Your task to perform on an android device: Open Google Chrome and click the shortcut for Amazon.com Image 0: 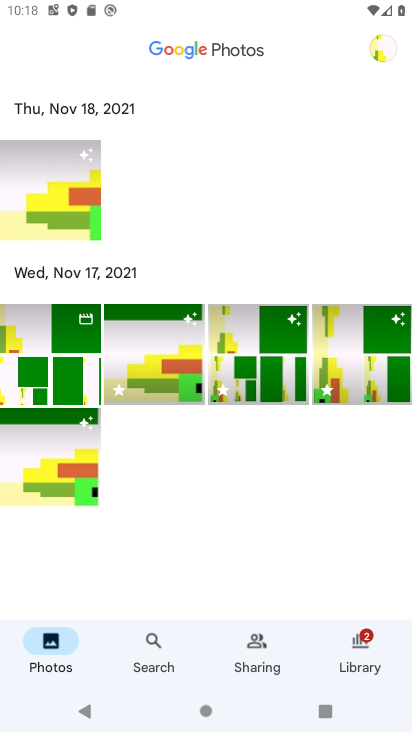
Step 0: press home button
Your task to perform on an android device: Open Google Chrome and click the shortcut for Amazon.com Image 1: 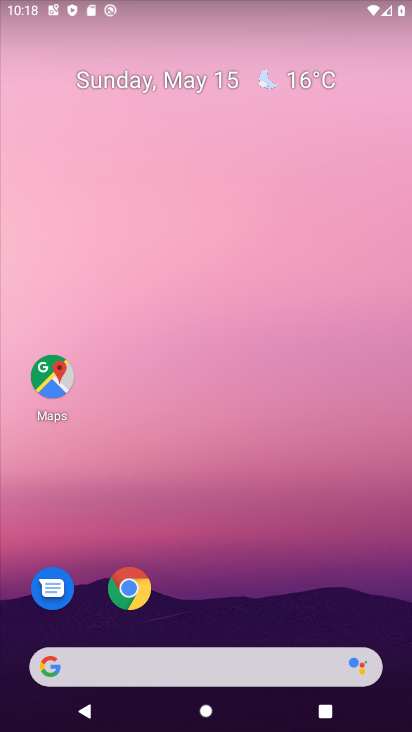
Step 1: click (135, 584)
Your task to perform on an android device: Open Google Chrome and click the shortcut for Amazon.com Image 2: 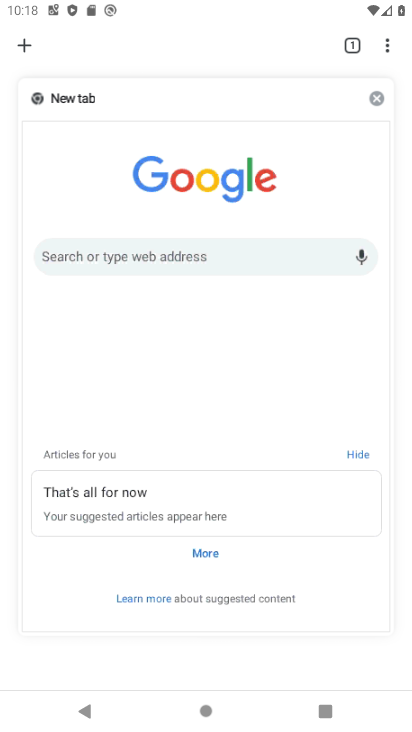
Step 2: click (24, 41)
Your task to perform on an android device: Open Google Chrome and click the shortcut for Amazon.com Image 3: 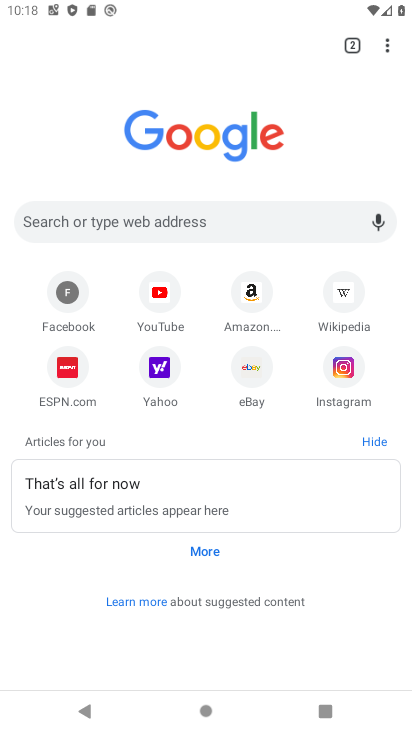
Step 3: click (262, 295)
Your task to perform on an android device: Open Google Chrome and click the shortcut for Amazon.com Image 4: 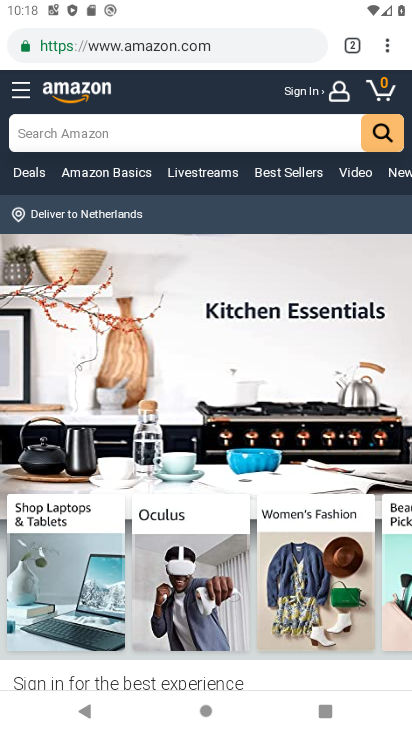
Step 4: task complete